Your task to perform on an android device: empty trash in the gmail app Image 0: 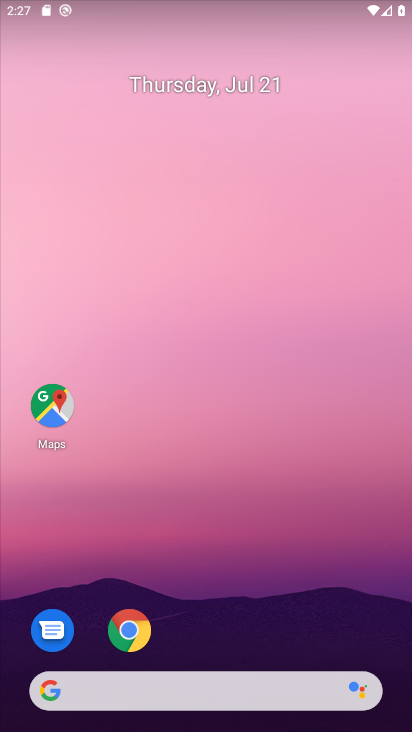
Step 0: drag from (273, 650) to (216, 249)
Your task to perform on an android device: empty trash in the gmail app Image 1: 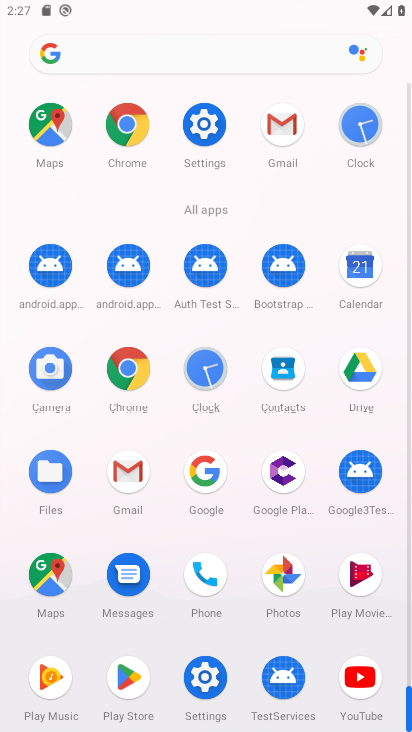
Step 1: click (122, 460)
Your task to perform on an android device: empty trash in the gmail app Image 2: 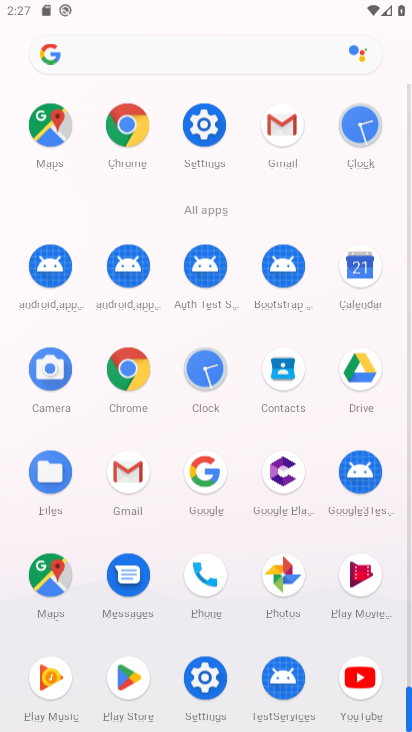
Step 2: click (116, 463)
Your task to perform on an android device: empty trash in the gmail app Image 3: 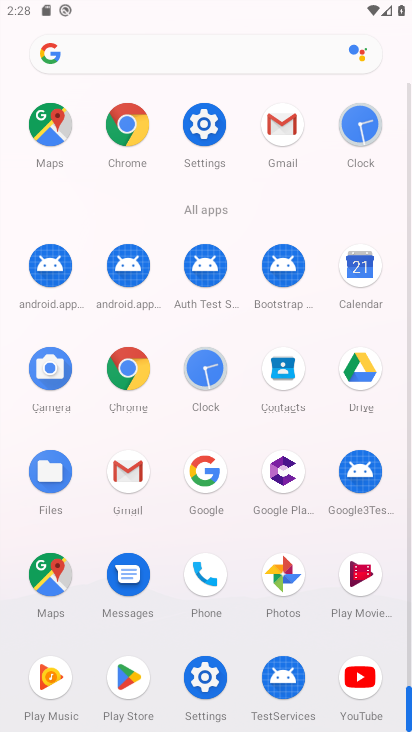
Step 3: click (128, 467)
Your task to perform on an android device: empty trash in the gmail app Image 4: 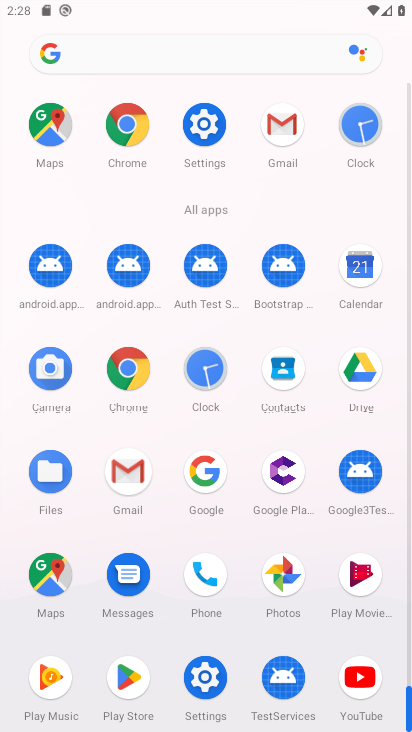
Step 4: click (128, 467)
Your task to perform on an android device: empty trash in the gmail app Image 5: 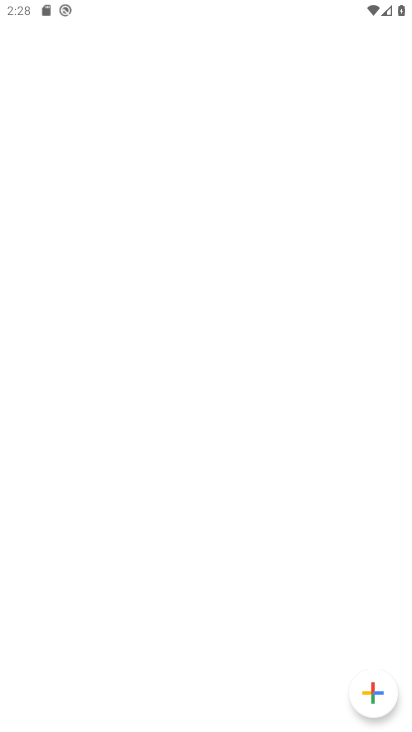
Step 5: click (129, 468)
Your task to perform on an android device: empty trash in the gmail app Image 6: 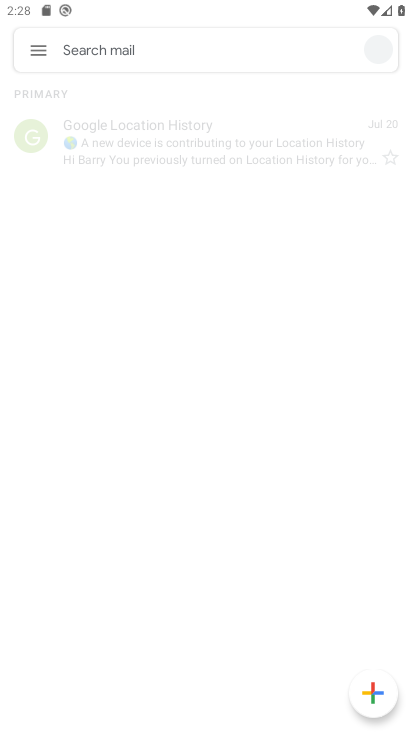
Step 6: click (130, 468)
Your task to perform on an android device: empty trash in the gmail app Image 7: 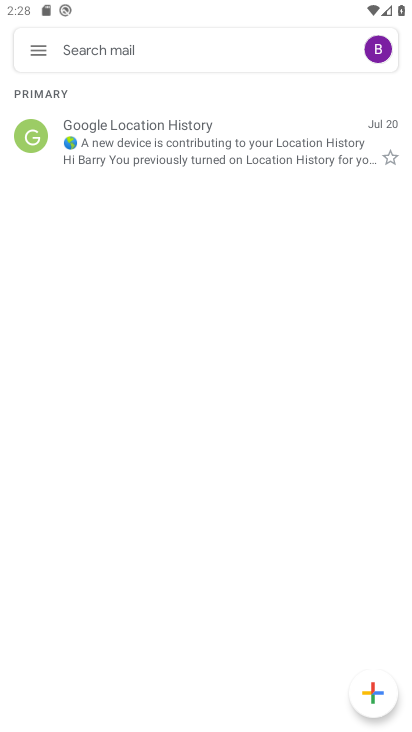
Step 7: click (37, 48)
Your task to perform on an android device: empty trash in the gmail app Image 8: 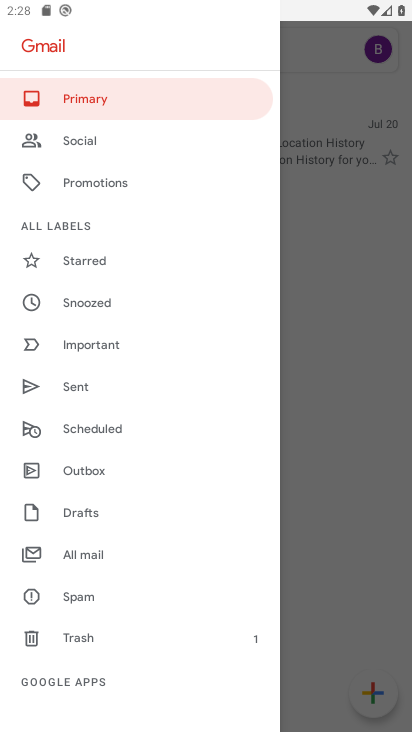
Step 8: click (82, 630)
Your task to perform on an android device: empty trash in the gmail app Image 9: 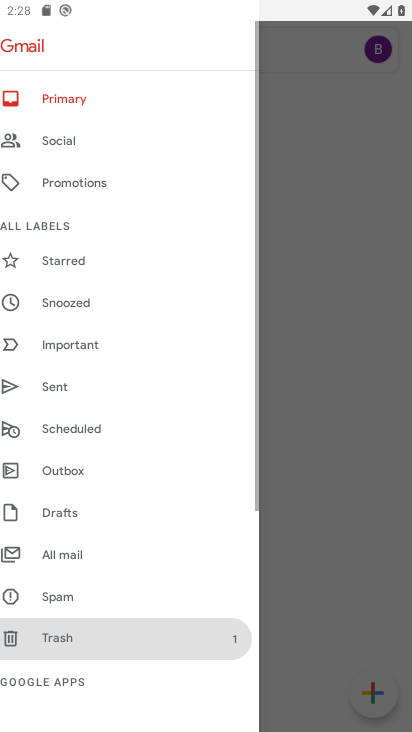
Step 9: click (82, 630)
Your task to perform on an android device: empty trash in the gmail app Image 10: 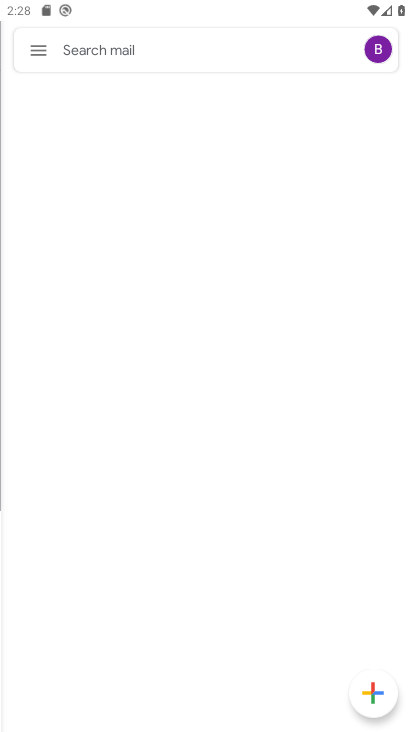
Step 10: click (82, 632)
Your task to perform on an android device: empty trash in the gmail app Image 11: 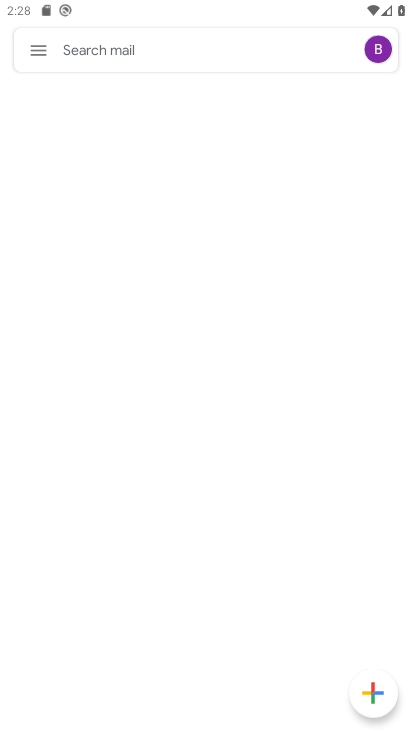
Step 11: click (84, 635)
Your task to perform on an android device: empty trash in the gmail app Image 12: 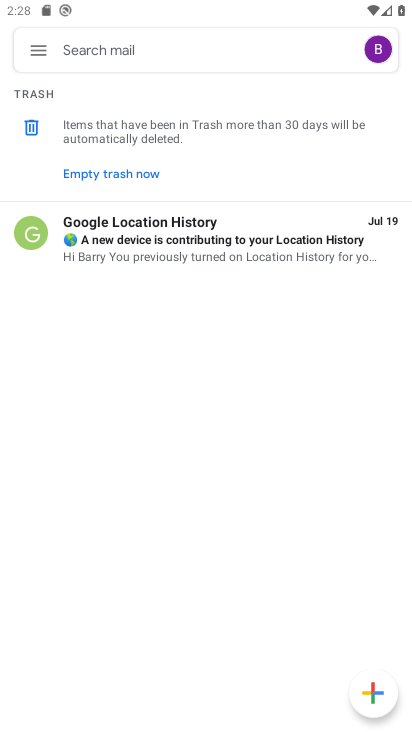
Step 12: click (120, 165)
Your task to perform on an android device: empty trash in the gmail app Image 13: 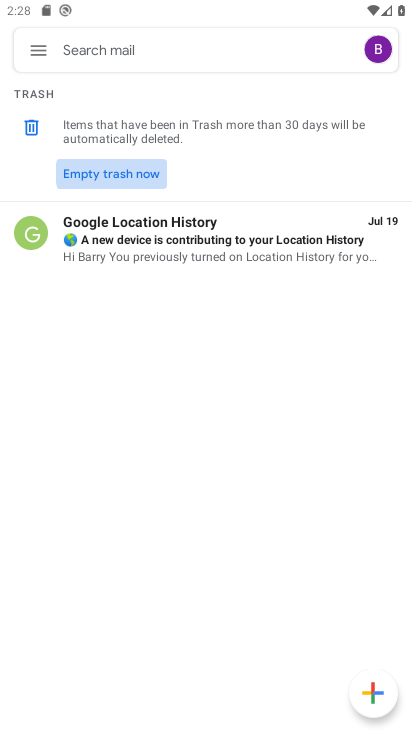
Step 13: click (123, 170)
Your task to perform on an android device: empty trash in the gmail app Image 14: 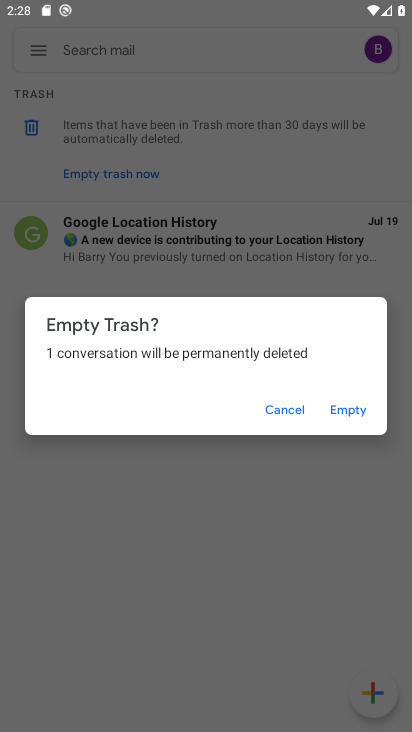
Step 14: click (124, 171)
Your task to perform on an android device: empty trash in the gmail app Image 15: 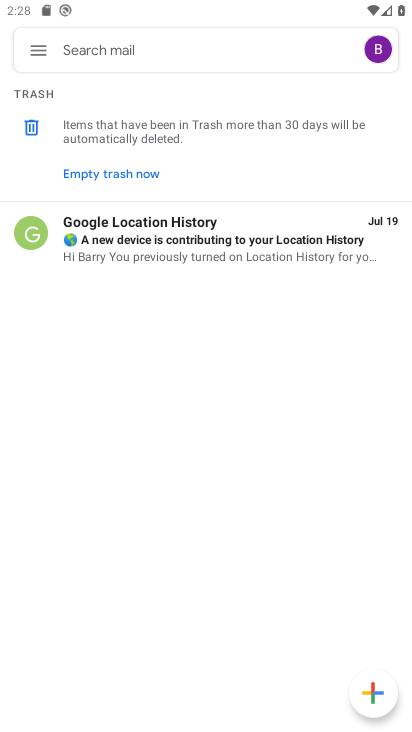
Step 15: click (124, 171)
Your task to perform on an android device: empty trash in the gmail app Image 16: 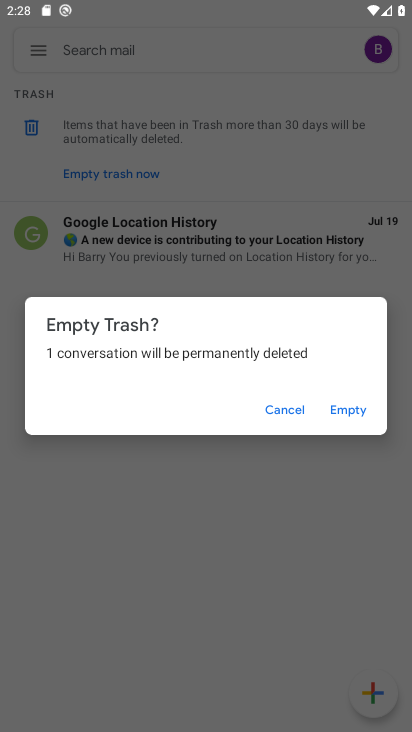
Step 16: click (346, 408)
Your task to perform on an android device: empty trash in the gmail app Image 17: 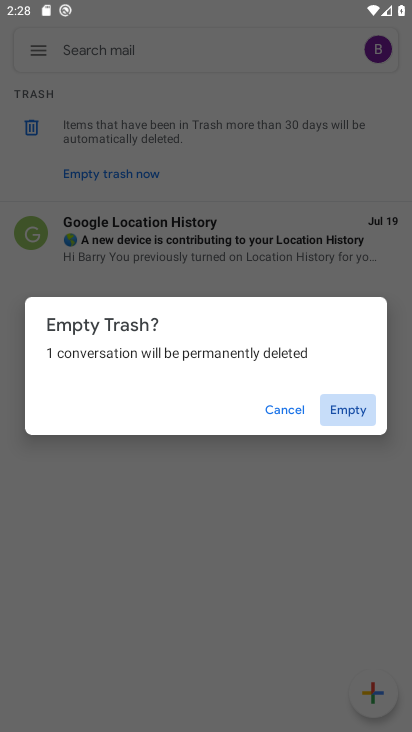
Step 17: click (346, 408)
Your task to perform on an android device: empty trash in the gmail app Image 18: 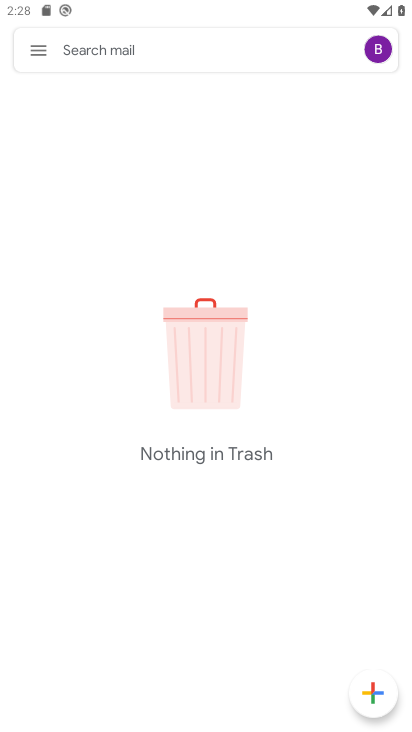
Step 18: task complete